Your task to perform on an android device: turn on the 12-hour format for clock Image 0: 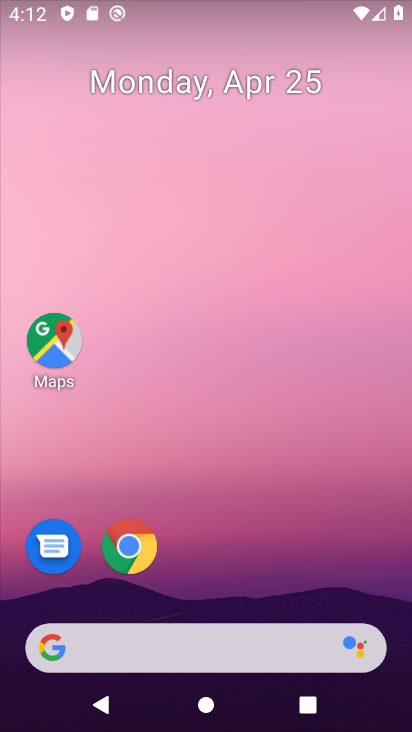
Step 0: drag from (238, 606) to (179, 9)
Your task to perform on an android device: turn on the 12-hour format for clock Image 1: 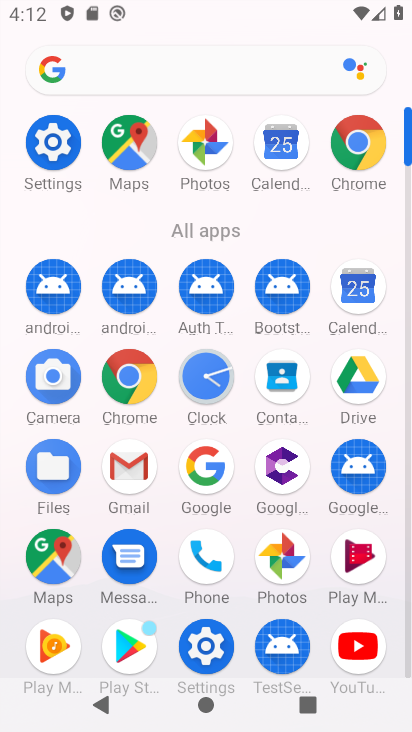
Step 1: click (197, 379)
Your task to perform on an android device: turn on the 12-hour format for clock Image 2: 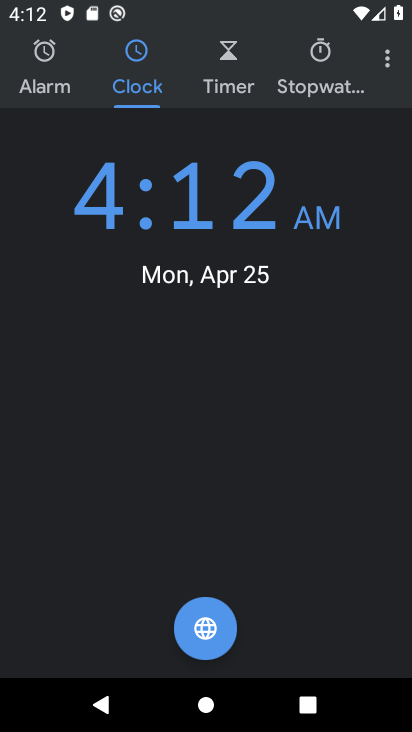
Step 2: click (388, 75)
Your task to perform on an android device: turn on the 12-hour format for clock Image 3: 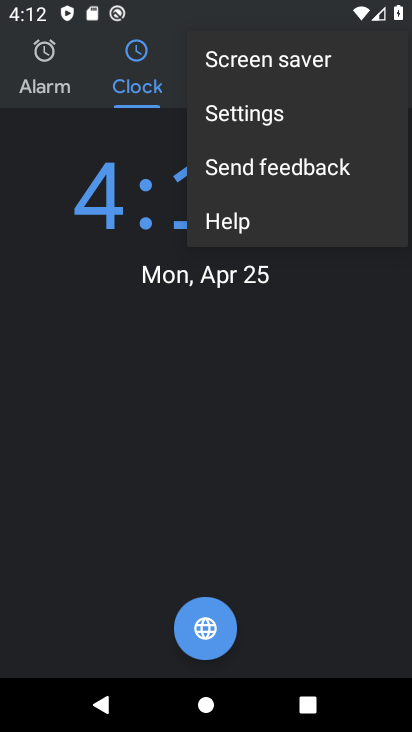
Step 3: click (266, 111)
Your task to perform on an android device: turn on the 12-hour format for clock Image 4: 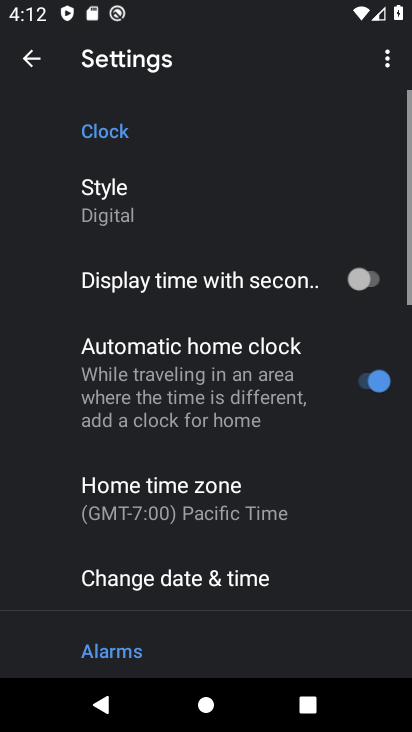
Step 4: drag from (175, 488) to (175, 174)
Your task to perform on an android device: turn on the 12-hour format for clock Image 5: 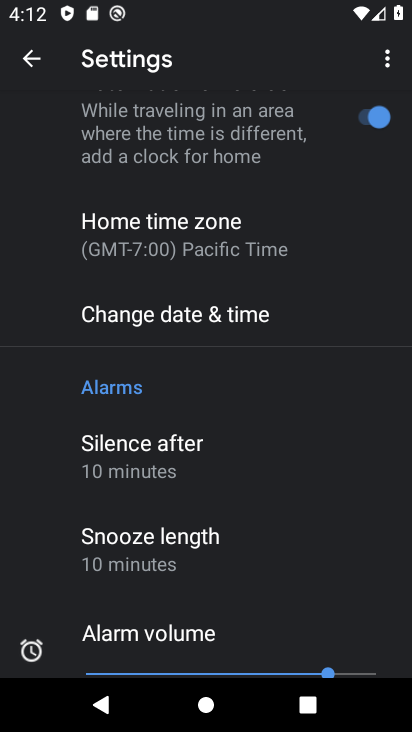
Step 5: click (171, 312)
Your task to perform on an android device: turn on the 12-hour format for clock Image 6: 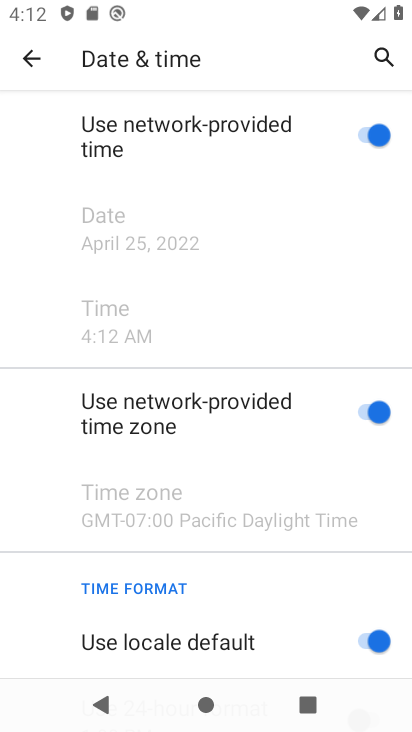
Step 6: task complete